Your task to perform on an android device: change alarm snooze length Image 0: 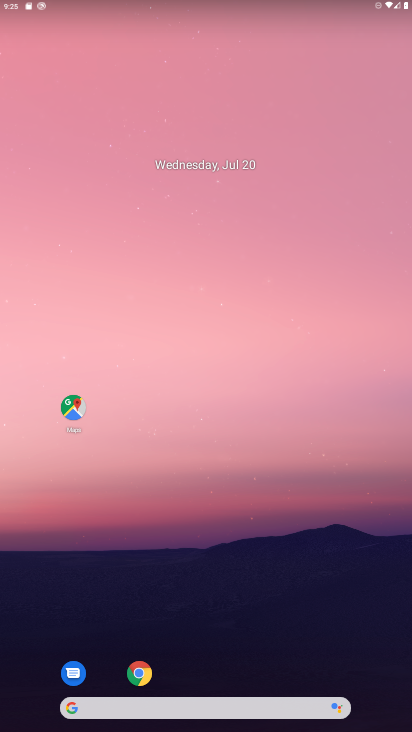
Step 0: drag from (219, 504) to (54, 8)
Your task to perform on an android device: change alarm snooze length Image 1: 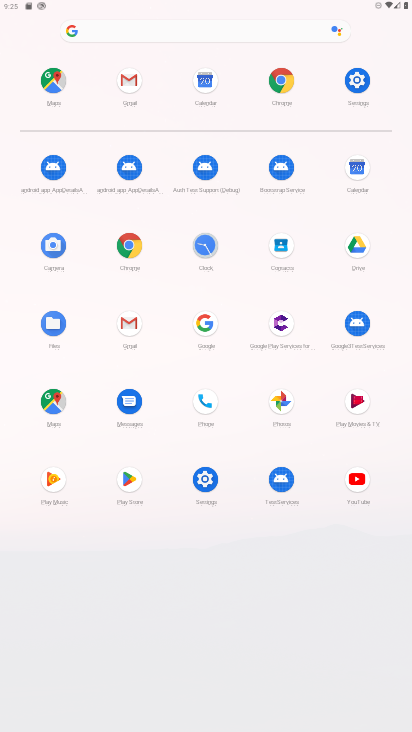
Step 1: click (208, 231)
Your task to perform on an android device: change alarm snooze length Image 2: 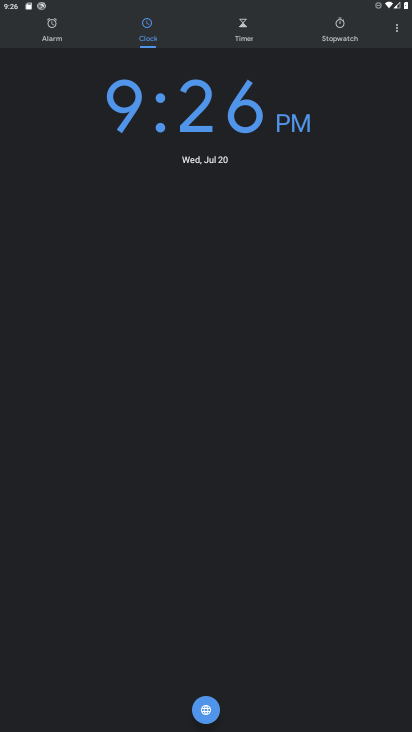
Step 2: drag from (397, 31) to (368, 55)
Your task to perform on an android device: change alarm snooze length Image 3: 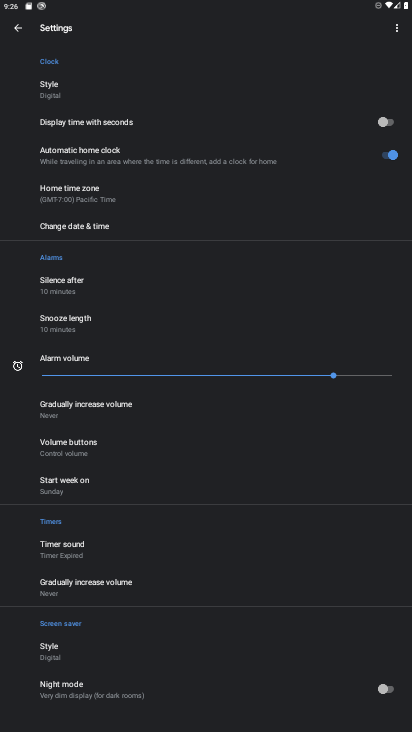
Step 3: click (111, 313)
Your task to perform on an android device: change alarm snooze length Image 4: 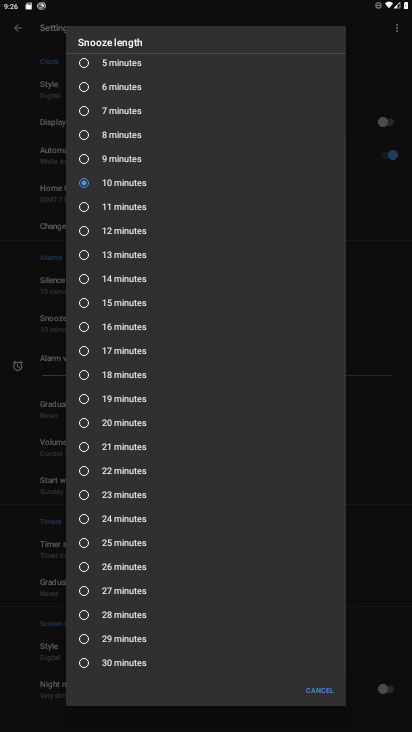
Step 4: click (111, 63)
Your task to perform on an android device: change alarm snooze length Image 5: 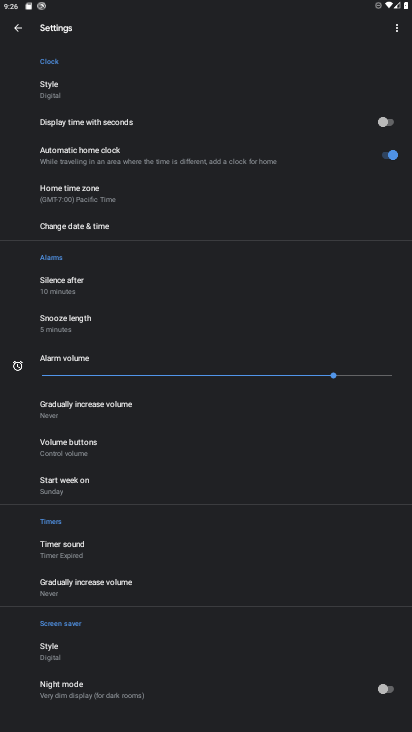
Step 5: task complete